Your task to perform on an android device: turn on the 24-hour format for clock Image 0: 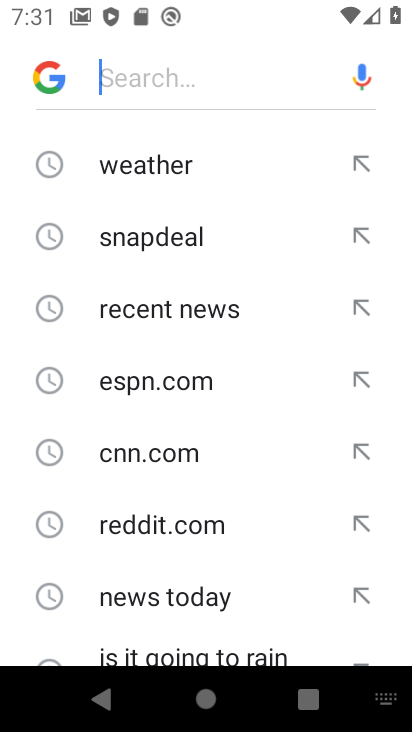
Step 0: press home button
Your task to perform on an android device: turn on the 24-hour format for clock Image 1: 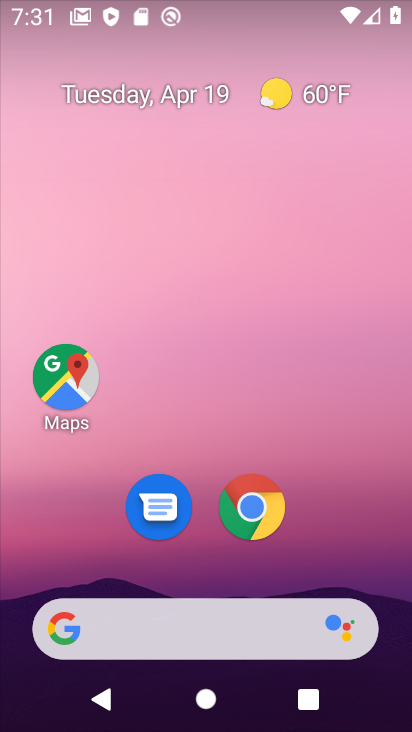
Step 1: drag from (342, 514) to (377, 77)
Your task to perform on an android device: turn on the 24-hour format for clock Image 2: 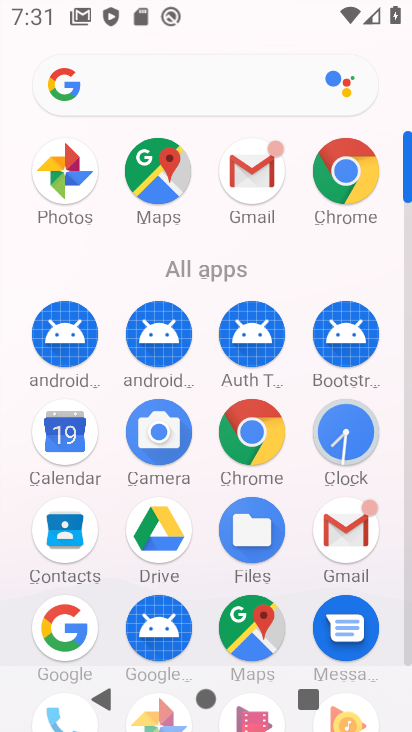
Step 2: click (355, 420)
Your task to perform on an android device: turn on the 24-hour format for clock Image 3: 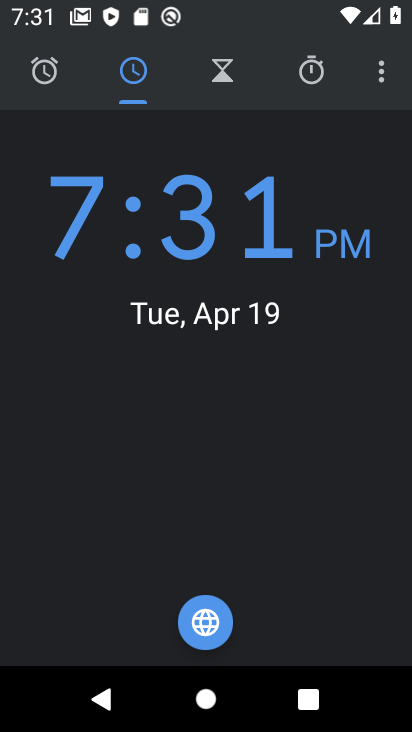
Step 3: click (386, 80)
Your task to perform on an android device: turn on the 24-hour format for clock Image 4: 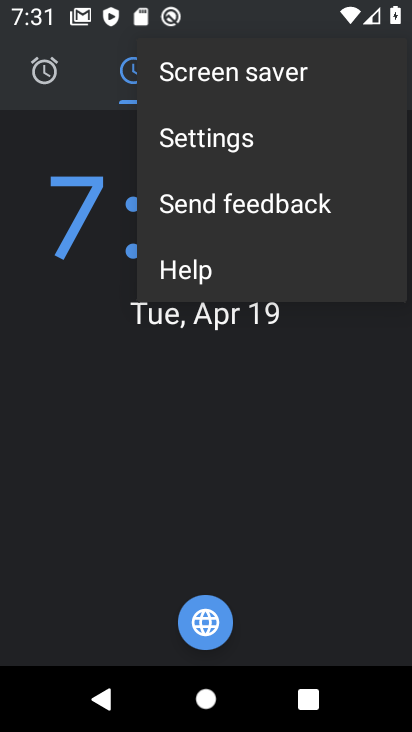
Step 4: click (282, 134)
Your task to perform on an android device: turn on the 24-hour format for clock Image 5: 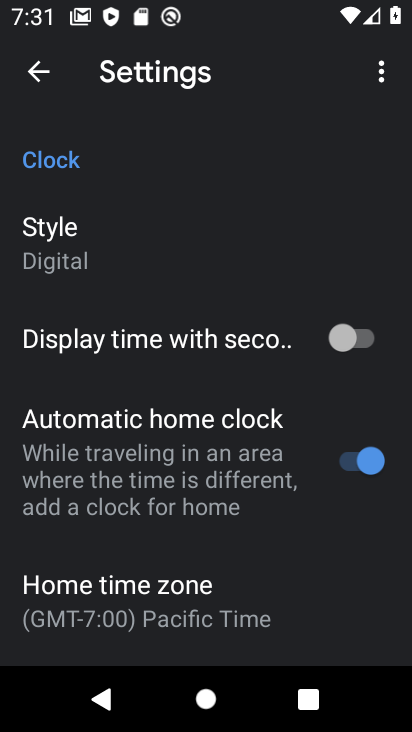
Step 5: drag from (238, 545) to (220, 209)
Your task to perform on an android device: turn on the 24-hour format for clock Image 6: 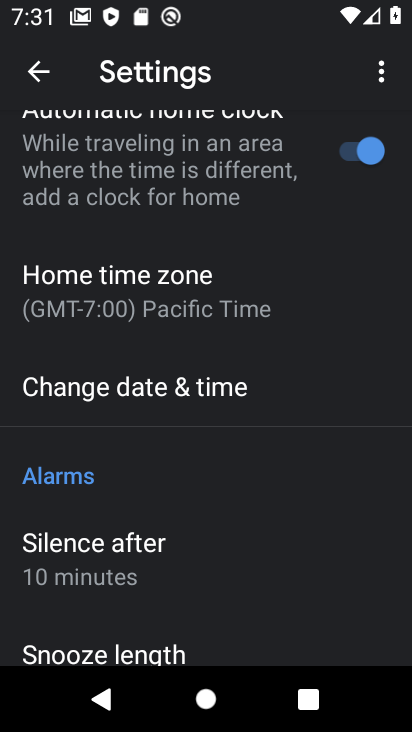
Step 6: click (234, 387)
Your task to perform on an android device: turn on the 24-hour format for clock Image 7: 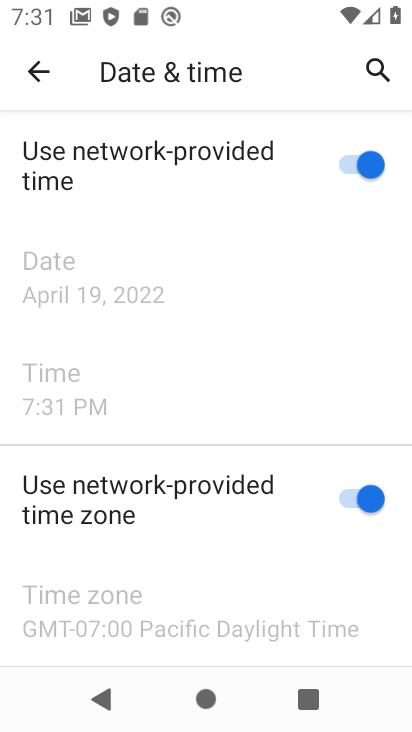
Step 7: drag from (275, 586) to (251, 113)
Your task to perform on an android device: turn on the 24-hour format for clock Image 8: 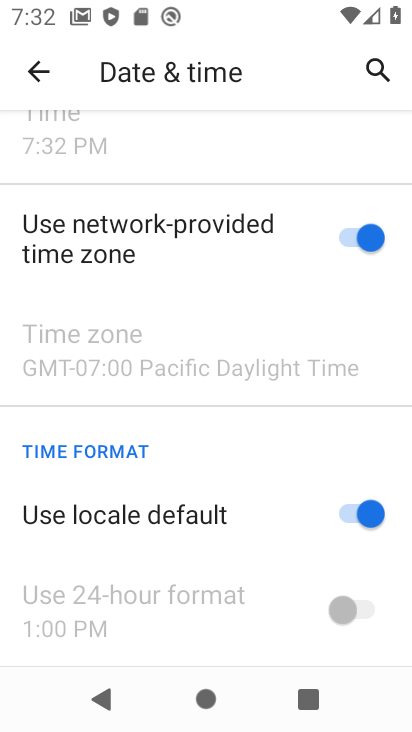
Step 8: drag from (281, 547) to (256, 329)
Your task to perform on an android device: turn on the 24-hour format for clock Image 9: 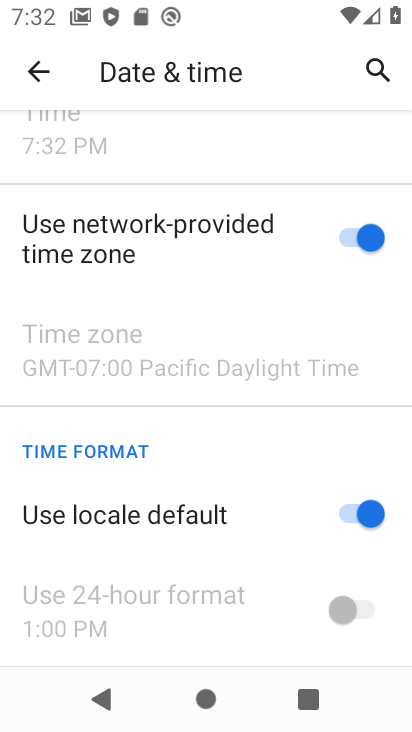
Step 9: click (348, 506)
Your task to perform on an android device: turn on the 24-hour format for clock Image 10: 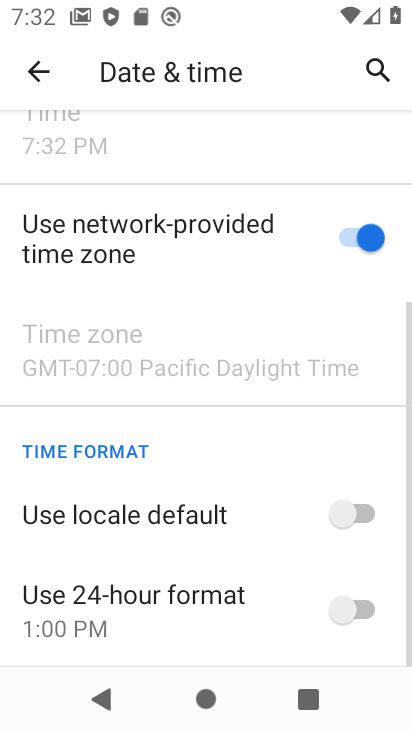
Step 10: click (366, 605)
Your task to perform on an android device: turn on the 24-hour format for clock Image 11: 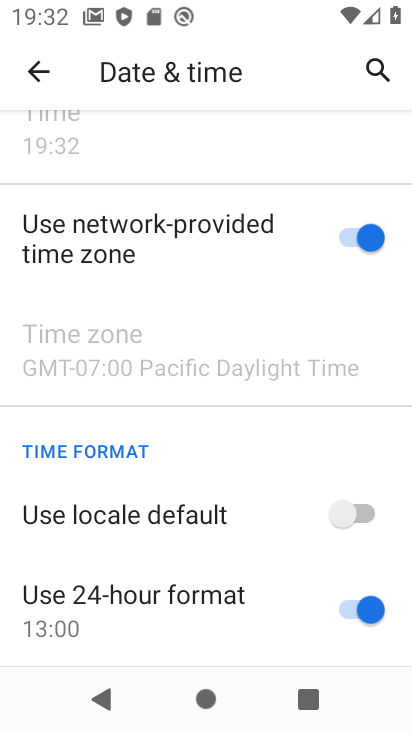
Step 11: task complete